Your task to perform on an android device: turn on notifications settings in the gmail app Image 0: 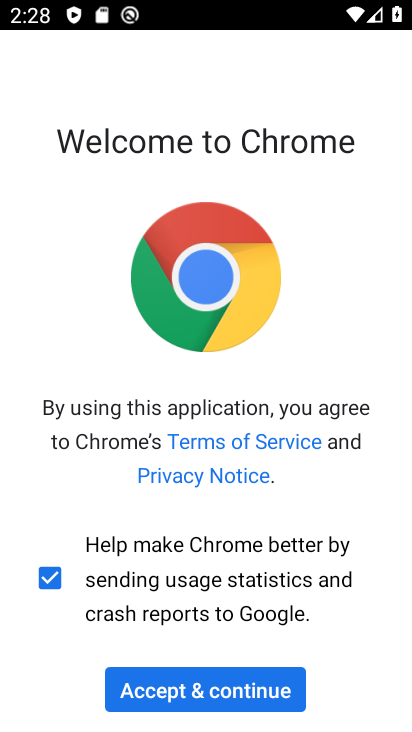
Step 0: click (194, 683)
Your task to perform on an android device: turn on notifications settings in the gmail app Image 1: 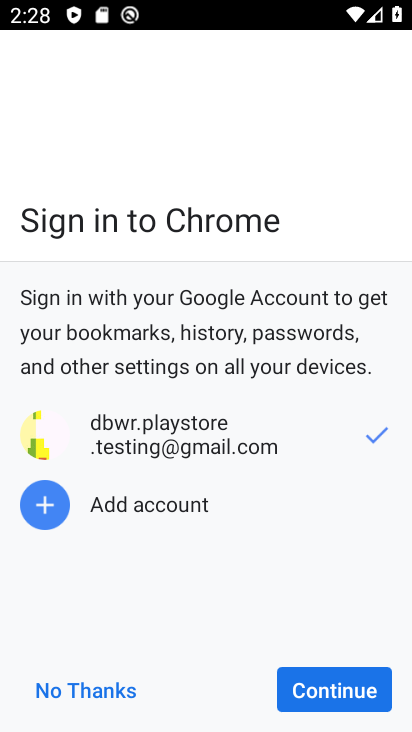
Step 1: press home button
Your task to perform on an android device: turn on notifications settings in the gmail app Image 2: 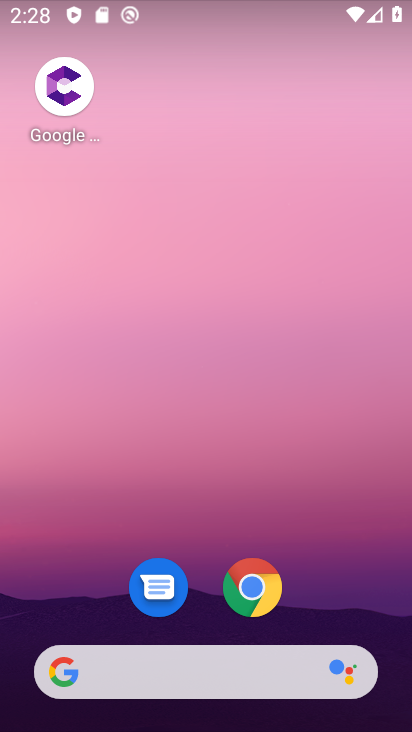
Step 2: drag from (213, 510) to (217, 194)
Your task to perform on an android device: turn on notifications settings in the gmail app Image 3: 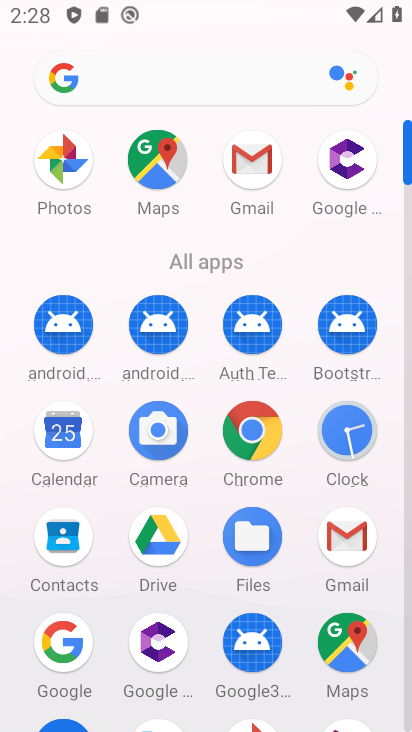
Step 3: click (252, 173)
Your task to perform on an android device: turn on notifications settings in the gmail app Image 4: 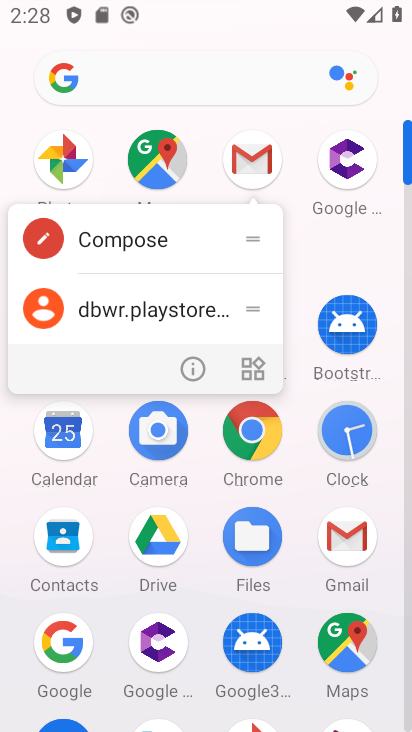
Step 4: click (185, 372)
Your task to perform on an android device: turn on notifications settings in the gmail app Image 5: 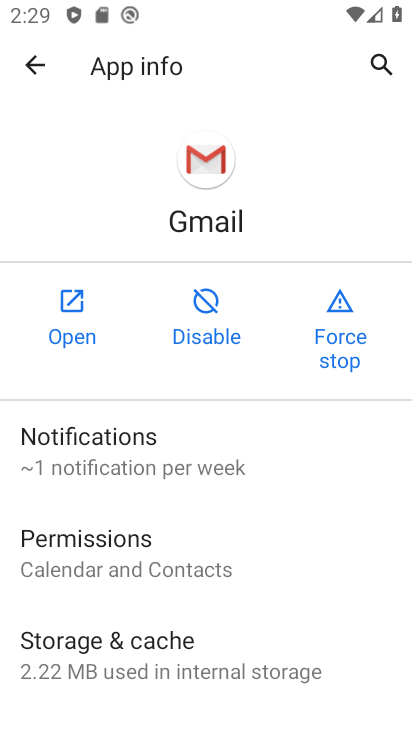
Step 5: click (68, 325)
Your task to perform on an android device: turn on notifications settings in the gmail app Image 6: 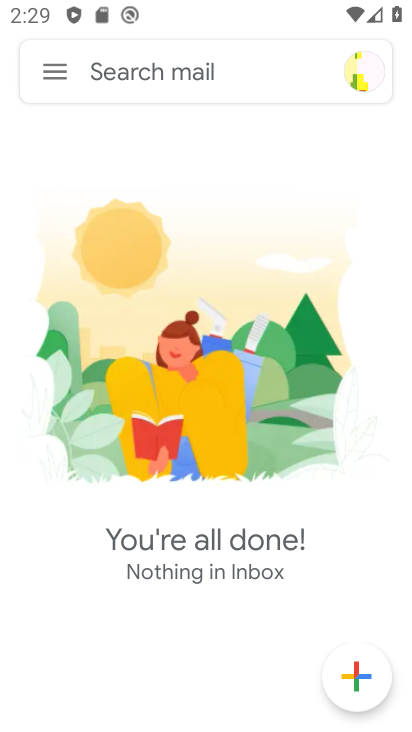
Step 6: click (39, 80)
Your task to perform on an android device: turn on notifications settings in the gmail app Image 7: 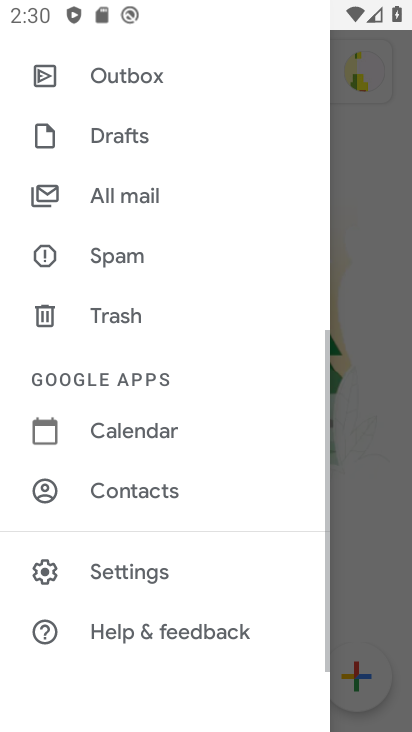
Step 7: click (111, 572)
Your task to perform on an android device: turn on notifications settings in the gmail app Image 8: 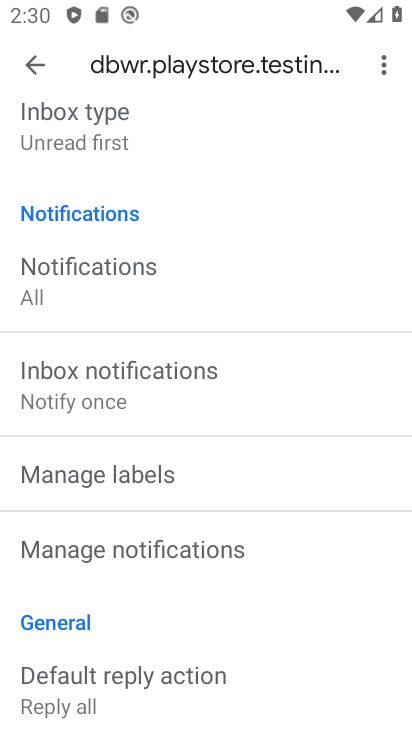
Step 8: drag from (149, 355) to (202, 683)
Your task to perform on an android device: turn on notifications settings in the gmail app Image 9: 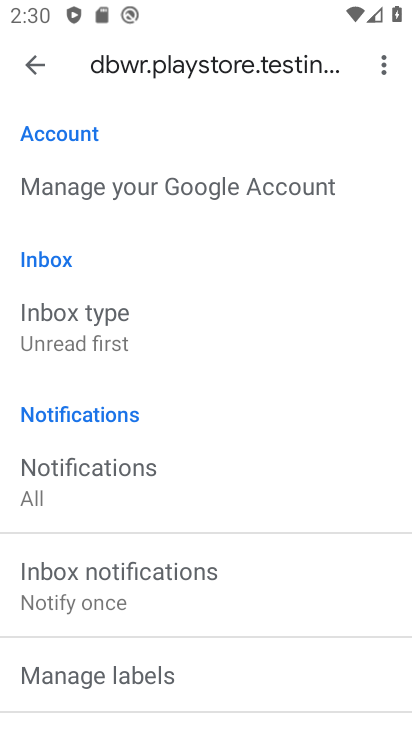
Step 9: drag from (176, 527) to (188, 156)
Your task to perform on an android device: turn on notifications settings in the gmail app Image 10: 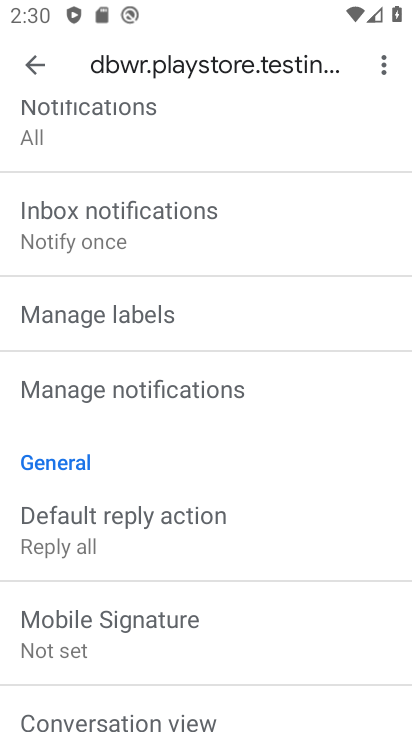
Step 10: click (144, 402)
Your task to perform on an android device: turn on notifications settings in the gmail app Image 11: 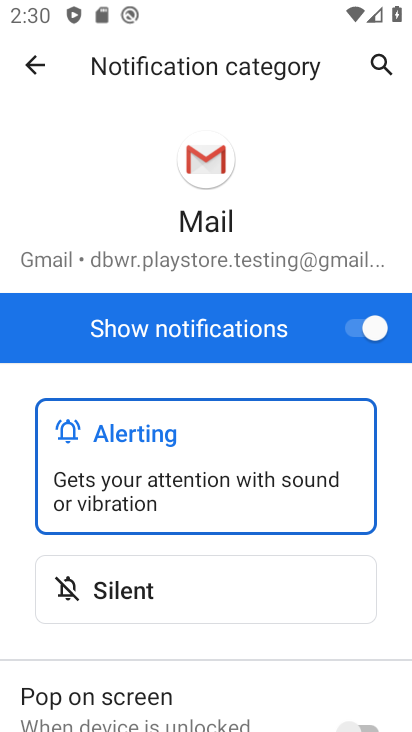
Step 11: task complete